Your task to perform on an android device: Open network settings Image 0: 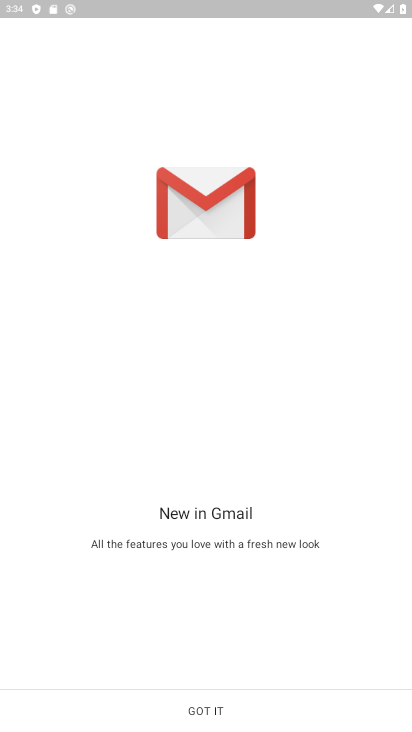
Step 0: press back button
Your task to perform on an android device: Open network settings Image 1: 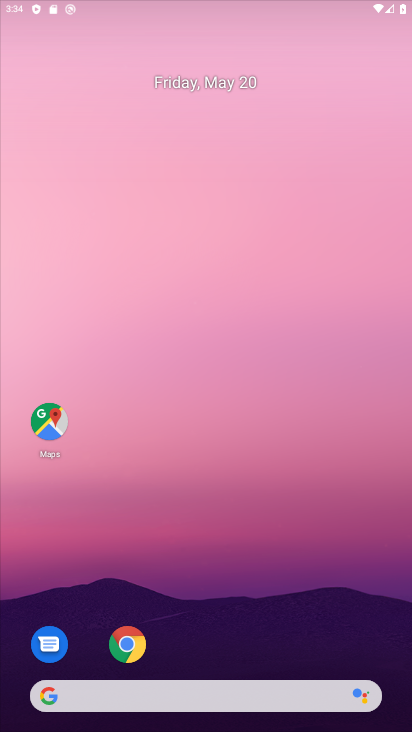
Step 1: drag from (295, 173) to (302, 53)
Your task to perform on an android device: Open network settings Image 2: 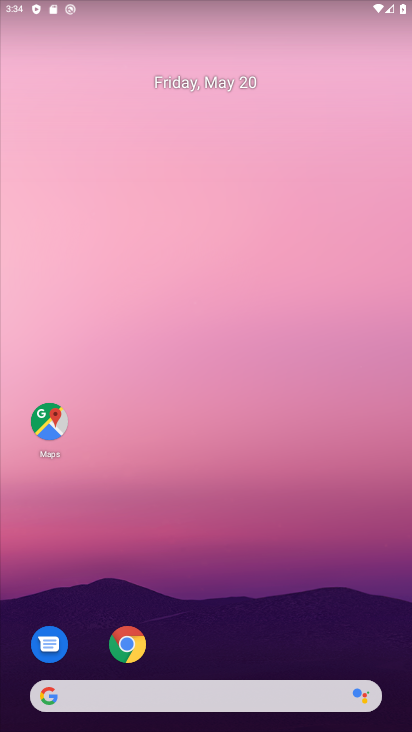
Step 2: drag from (223, 589) to (313, 112)
Your task to perform on an android device: Open network settings Image 3: 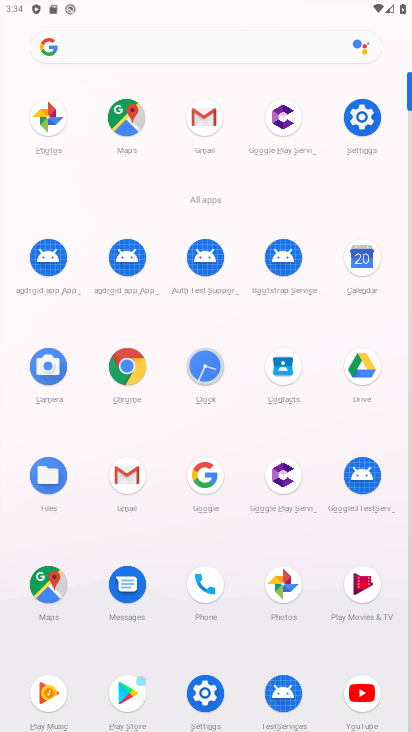
Step 3: click (352, 118)
Your task to perform on an android device: Open network settings Image 4: 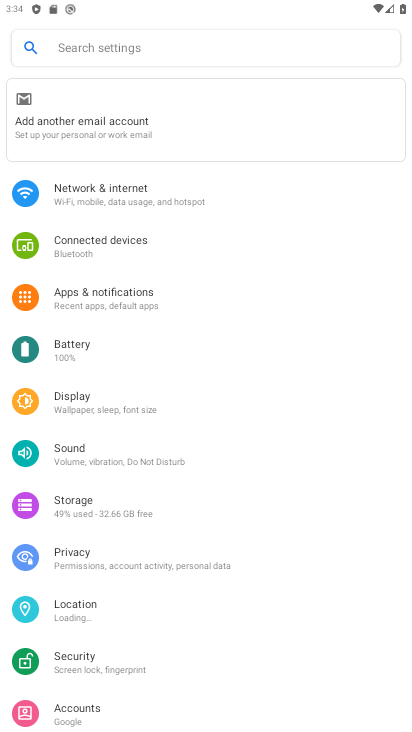
Step 4: click (80, 192)
Your task to perform on an android device: Open network settings Image 5: 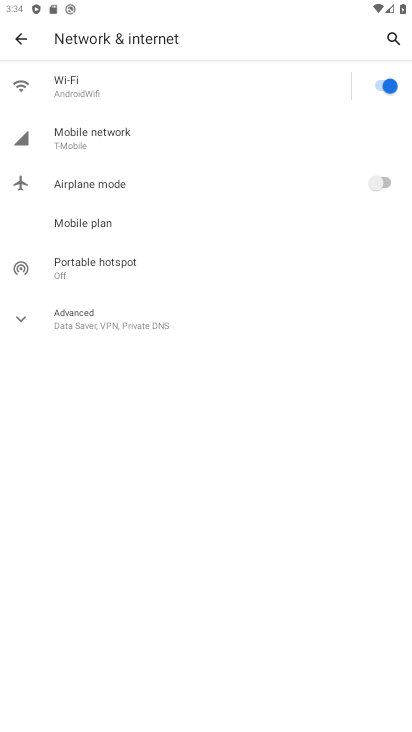
Step 5: task complete